Your task to perform on an android device: What's the weather? Image 0: 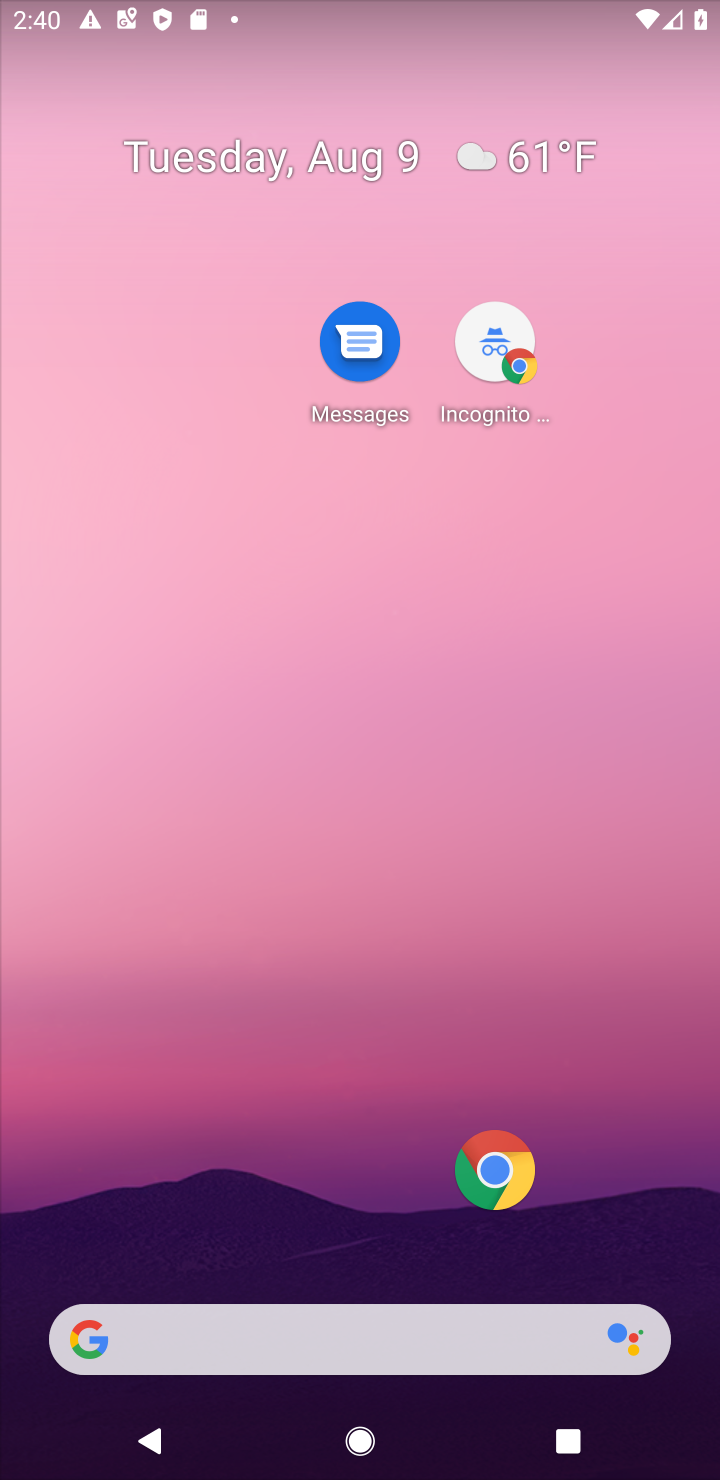
Step 0: click (196, 1320)
Your task to perform on an android device: What's the weather? Image 1: 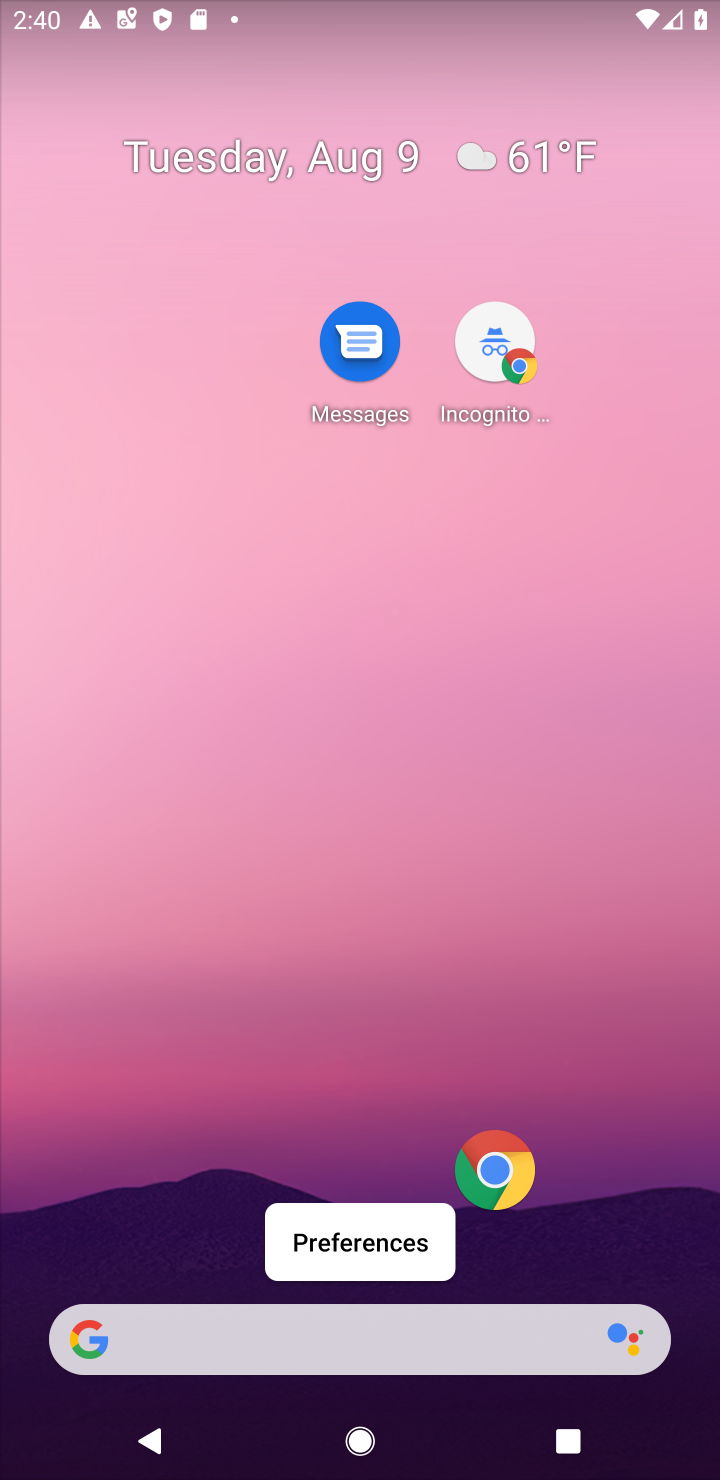
Step 1: click (269, 1331)
Your task to perform on an android device: What's the weather? Image 2: 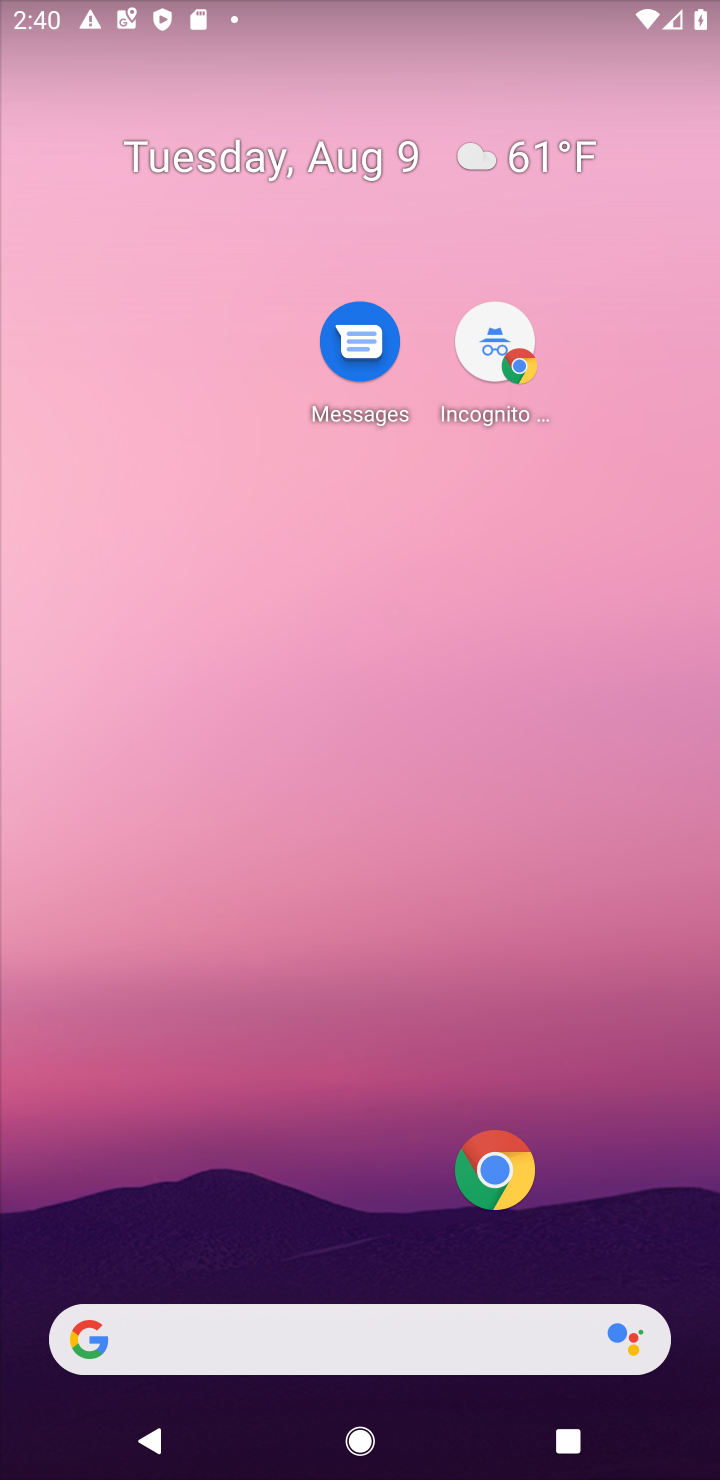
Step 2: click (324, 1321)
Your task to perform on an android device: What's the weather? Image 3: 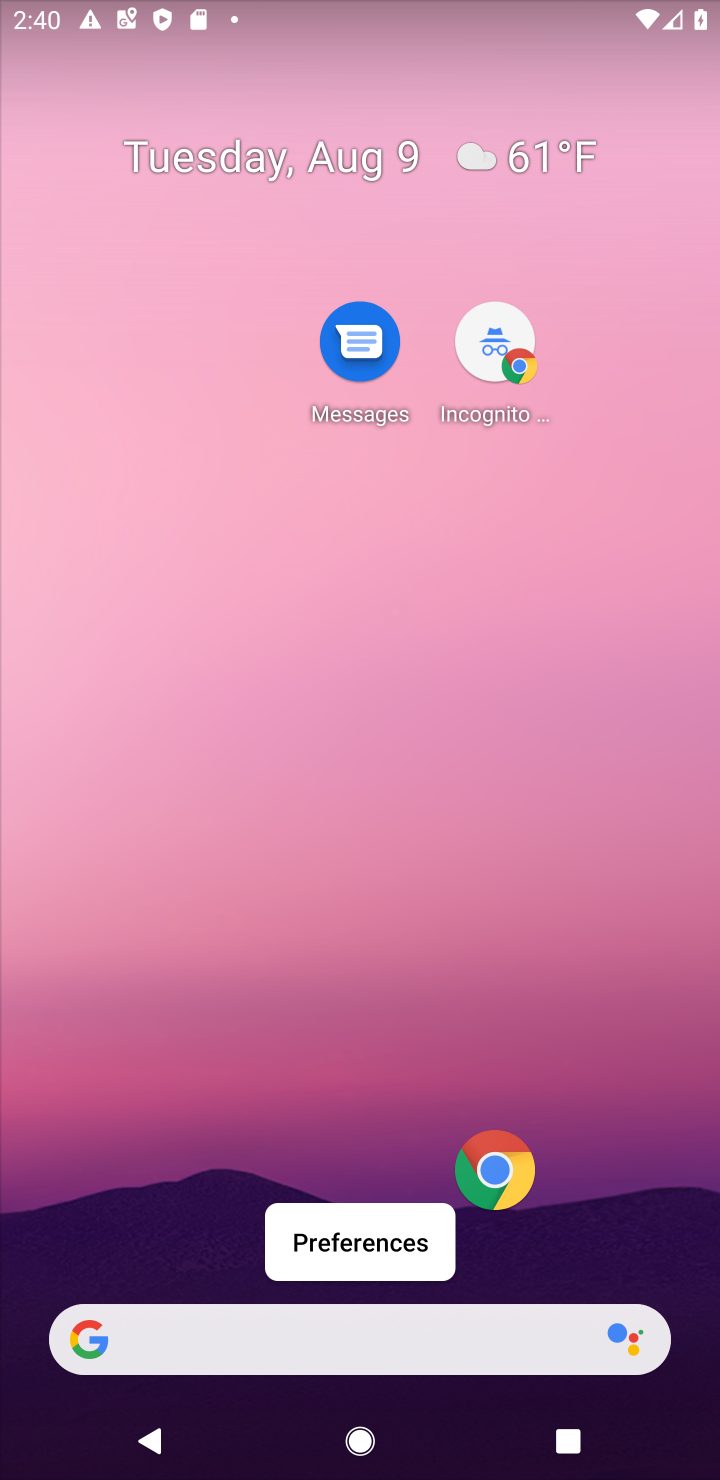
Step 3: drag from (235, 883) to (351, 124)
Your task to perform on an android device: What's the weather? Image 4: 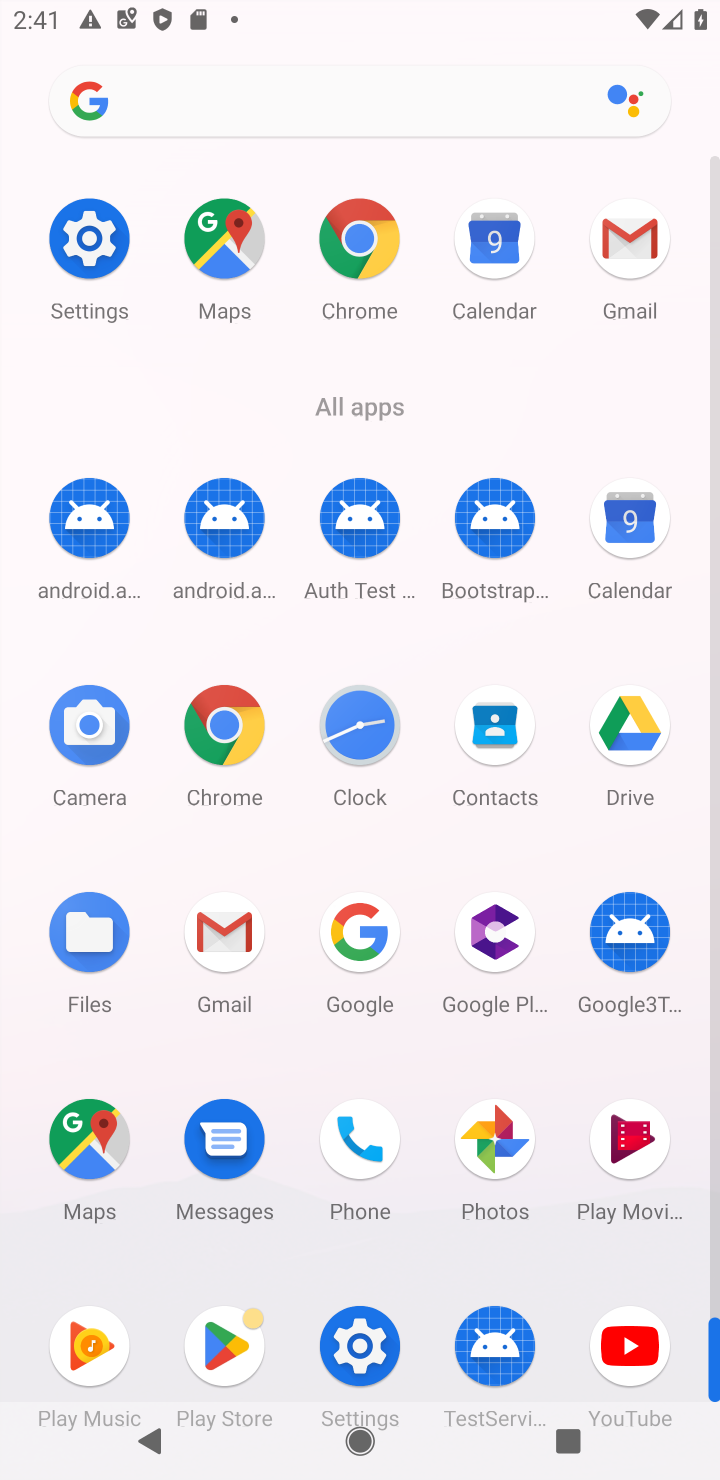
Step 4: click (367, 963)
Your task to perform on an android device: What's the weather? Image 5: 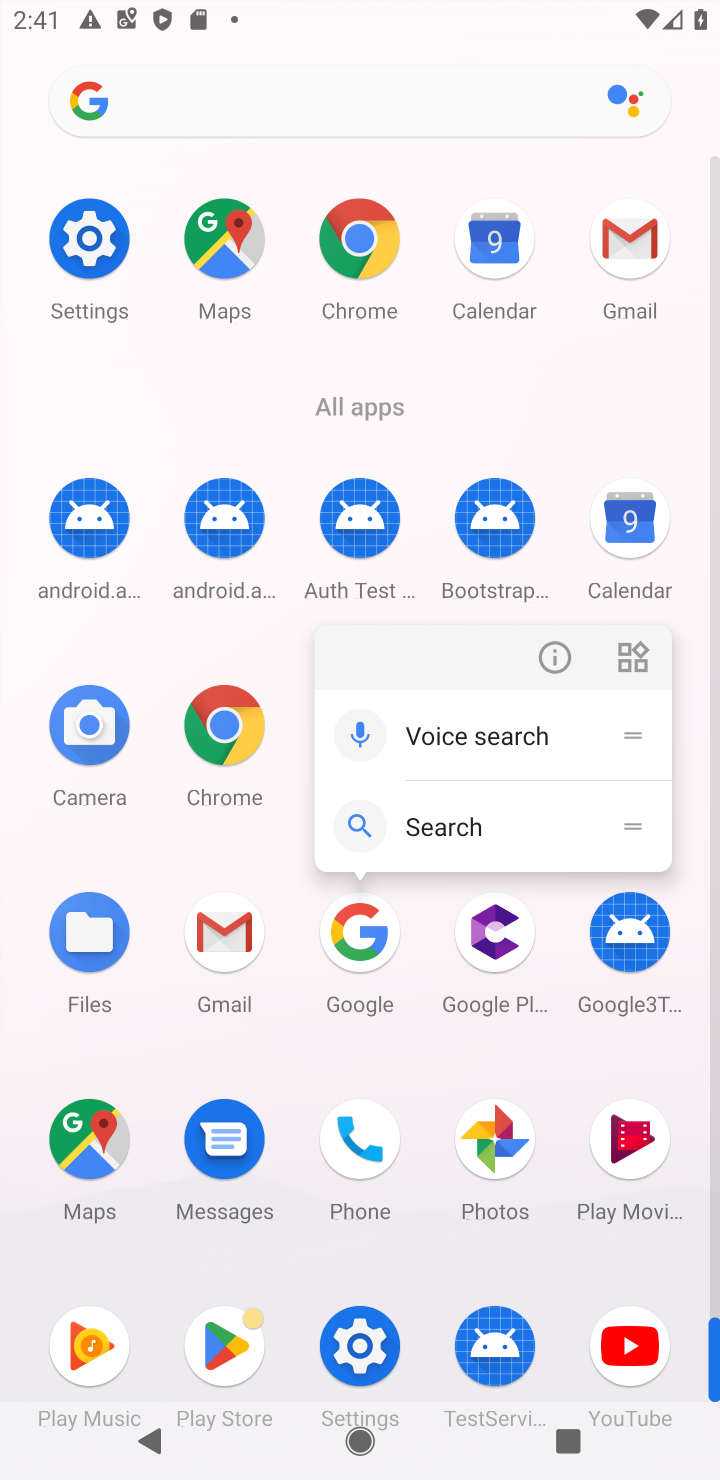
Step 5: click (363, 963)
Your task to perform on an android device: What's the weather? Image 6: 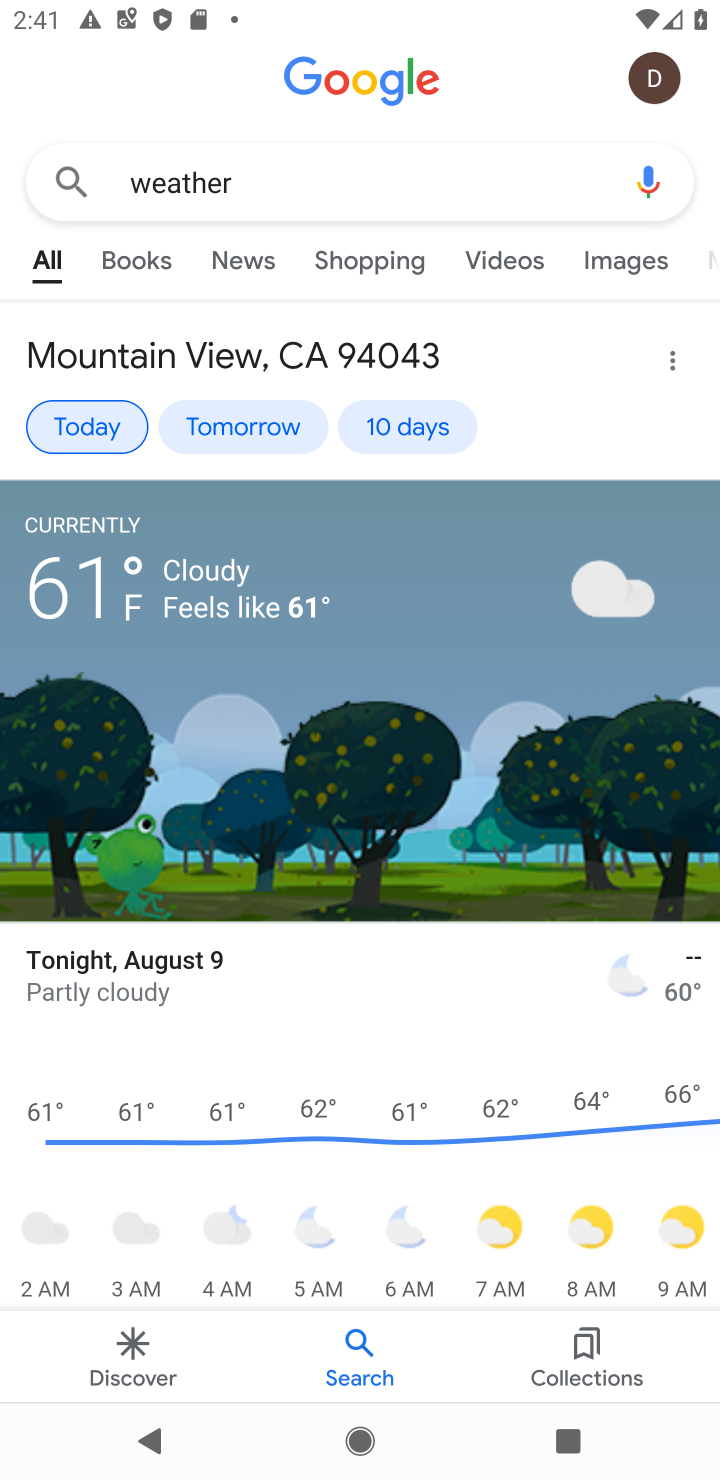
Step 6: task complete